Your task to perform on an android device: check android version Image 0: 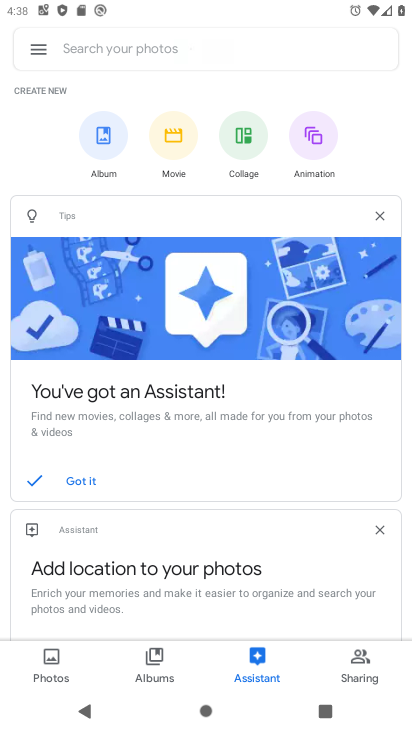
Step 0: press home button
Your task to perform on an android device: check android version Image 1: 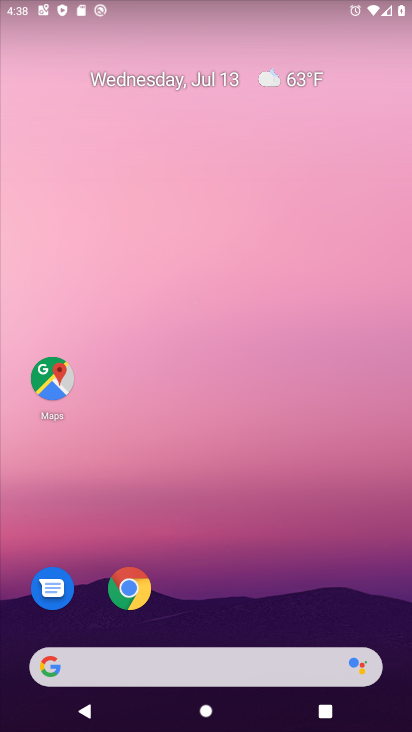
Step 1: drag from (217, 666) to (249, 142)
Your task to perform on an android device: check android version Image 2: 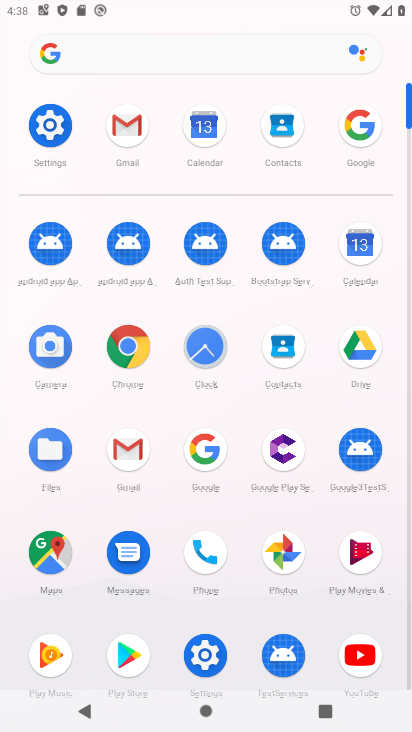
Step 2: click (50, 123)
Your task to perform on an android device: check android version Image 3: 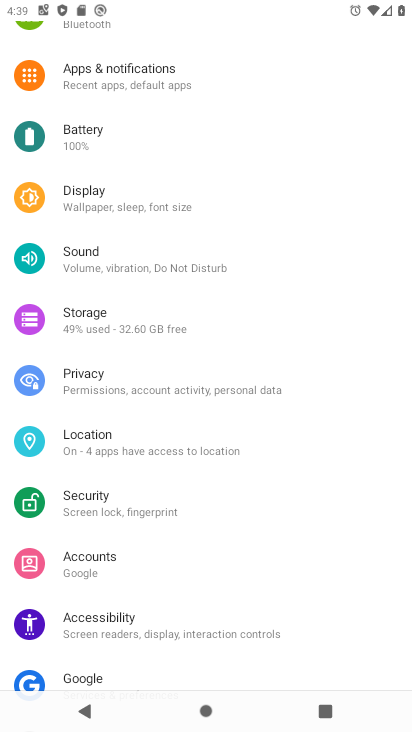
Step 3: drag from (157, 480) to (288, 239)
Your task to perform on an android device: check android version Image 4: 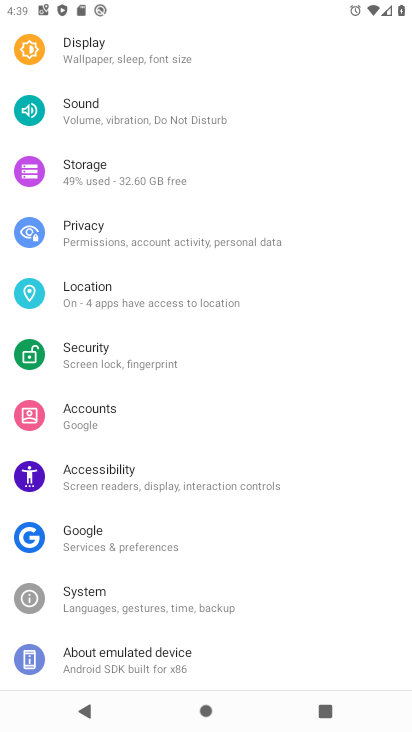
Step 4: click (138, 653)
Your task to perform on an android device: check android version Image 5: 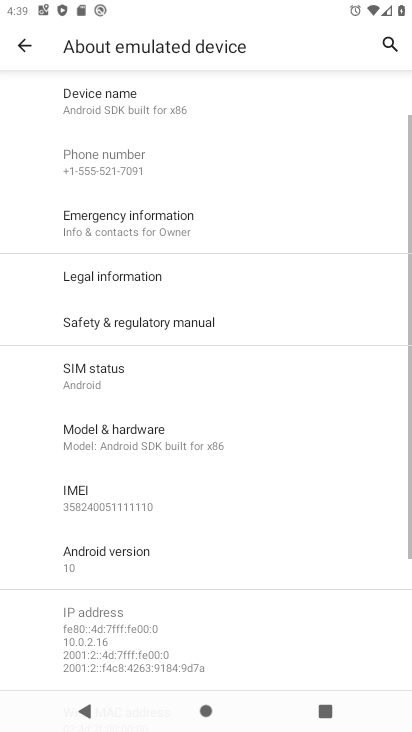
Step 5: click (128, 555)
Your task to perform on an android device: check android version Image 6: 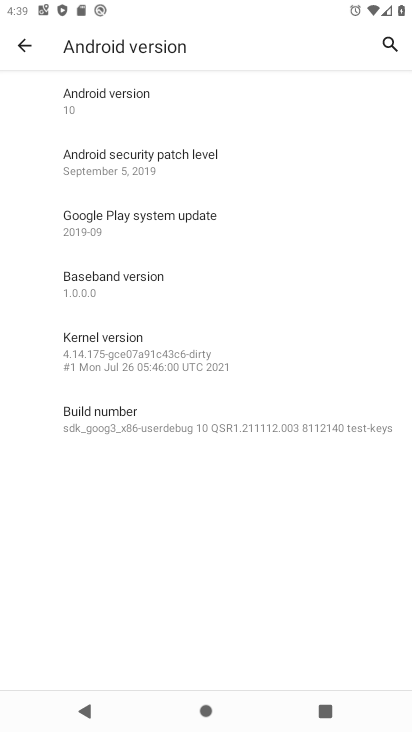
Step 6: task complete